Your task to perform on an android device: search for starred emails in the gmail app Image 0: 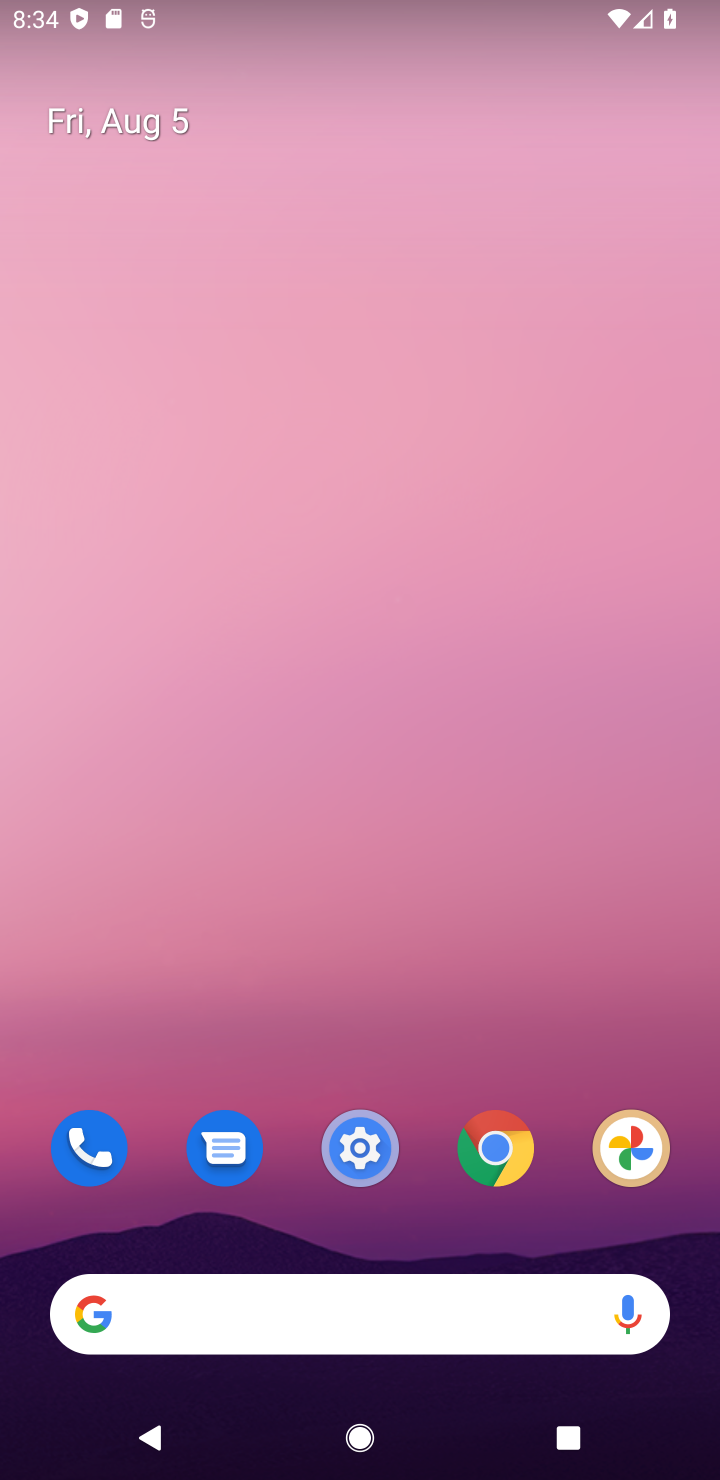
Step 0: task complete